Your task to perform on an android device: Do I have any events today? Image 0: 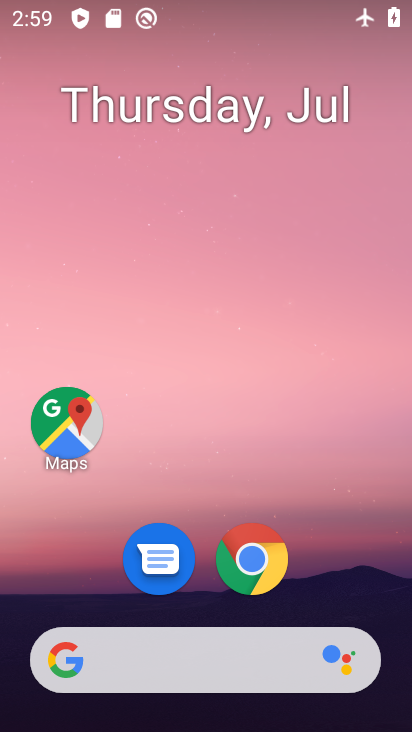
Step 0: drag from (180, 639) to (195, 127)
Your task to perform on an android device: Do I have any events today? Image 1: 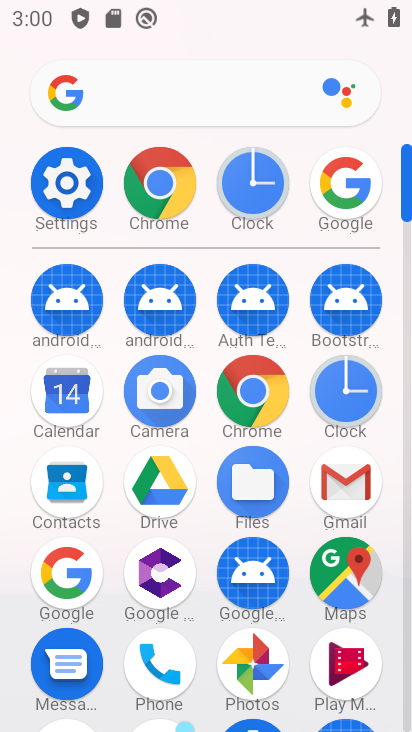
Step 1: click (81, 403)
Your task to perform on an android device: Do I have any events today? Image 2: 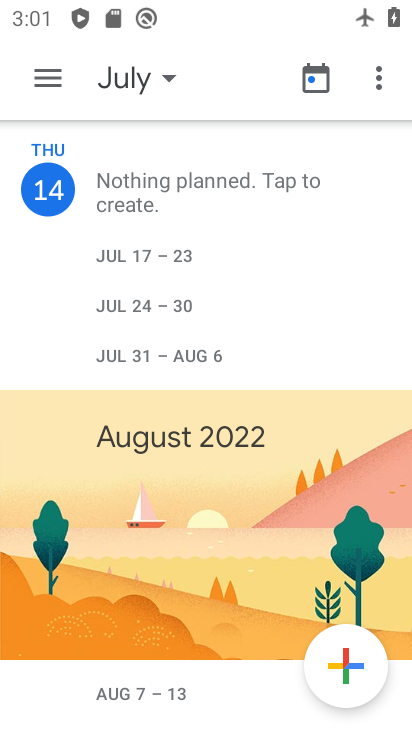
Step 2: task complete